Your task to perform on an android device: stop showing notifications on the lock screen Image 0: 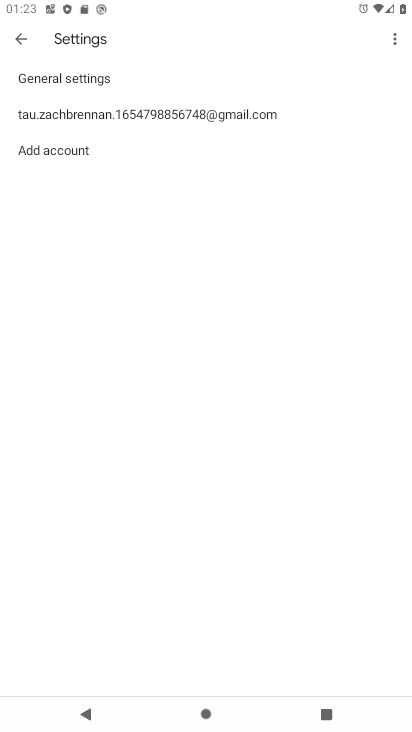
Step 0: press home button
Your task to perform on an android device: stop showing notifications on the lock screen Image 1: 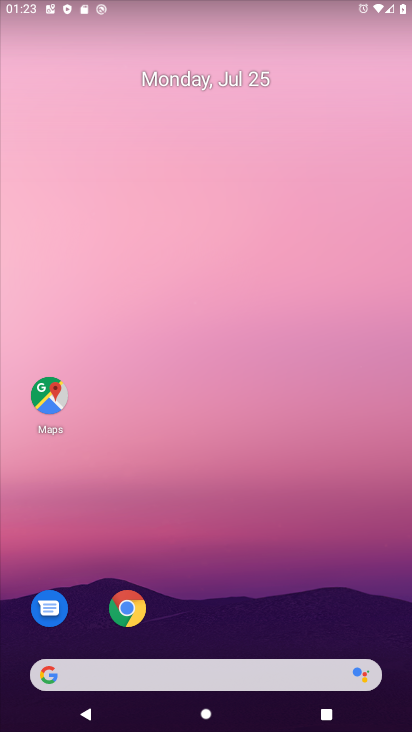
Step 1: drag from (191, 658) to (180, 28)
Your task to perform on an android device: stop showing notifications on the lock screen Image 2: 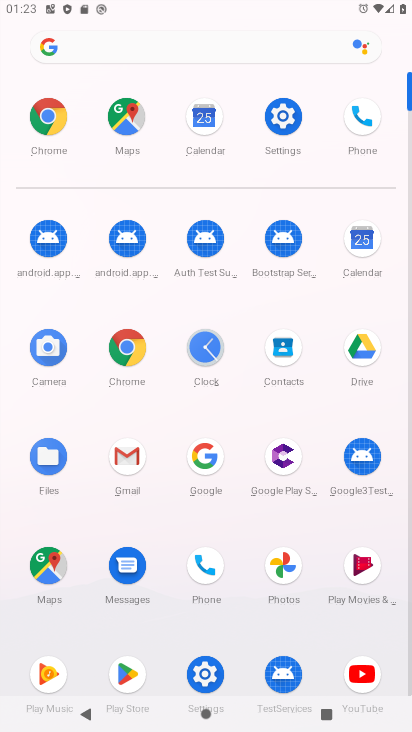
Step 2: click (275, 98)
Your task to perform on an android device: stop showing notifications on the lock screen Image 3: 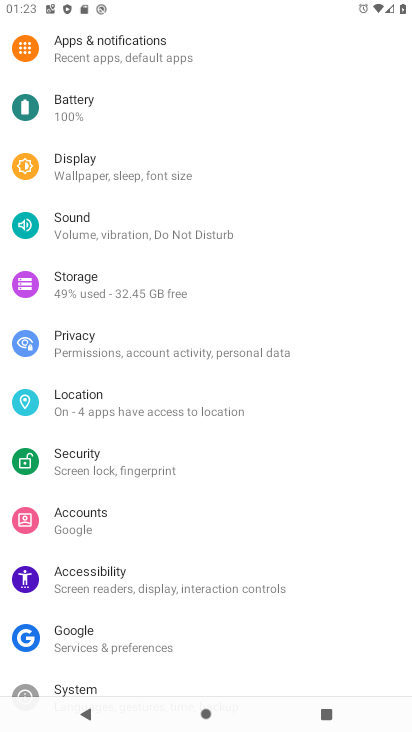
Step 3: drag from (199, 126) to (176, 510)
Your task to perform on an android device: stop showing notifications on the lock screen Image 4: 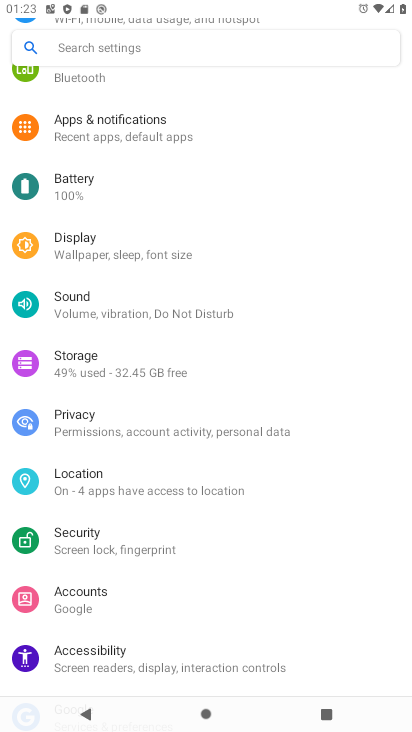
Step 4: click (103, 146)
Your task to perform on an android device: stop showing notifications on the lock screen Image 5: 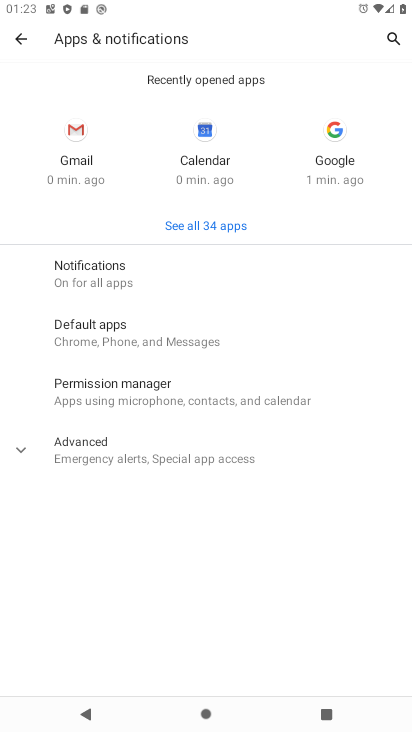
Step 5: click (111, 445)
Your task to perform on an android device: stop showing notifications on the lock screen Image 6: 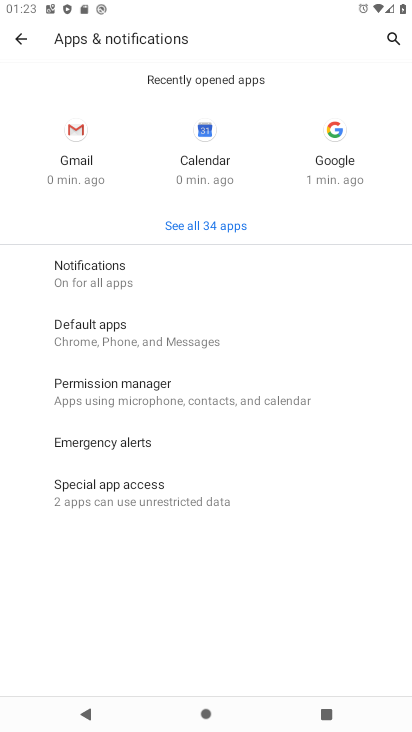
Step 6: click (114, 275)
Your task to perform on an android device: stop showing notifications on the lock screen Image 7: 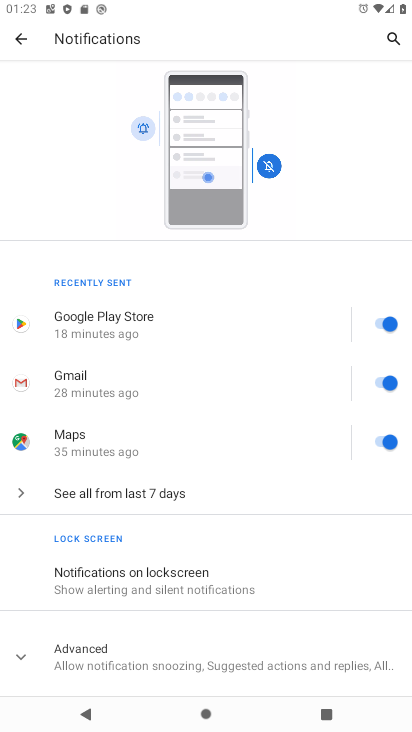
Step 7: click (183, 574)
Your task to perform on an android device: stop showing notifications on the lock screen Image 8: 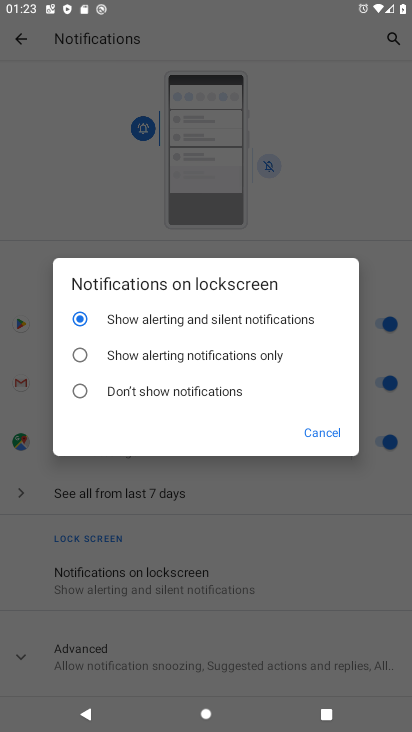
Step 8: click (159, 390)
Your task to perform on an android device: stop showing notifications on the lock screen Image 9: 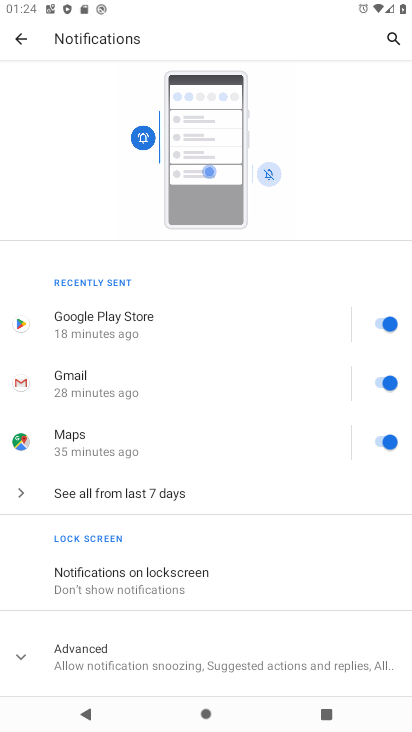
Step 9: task complete